Your task to perform on an android device: Go to sound settings Image 0: 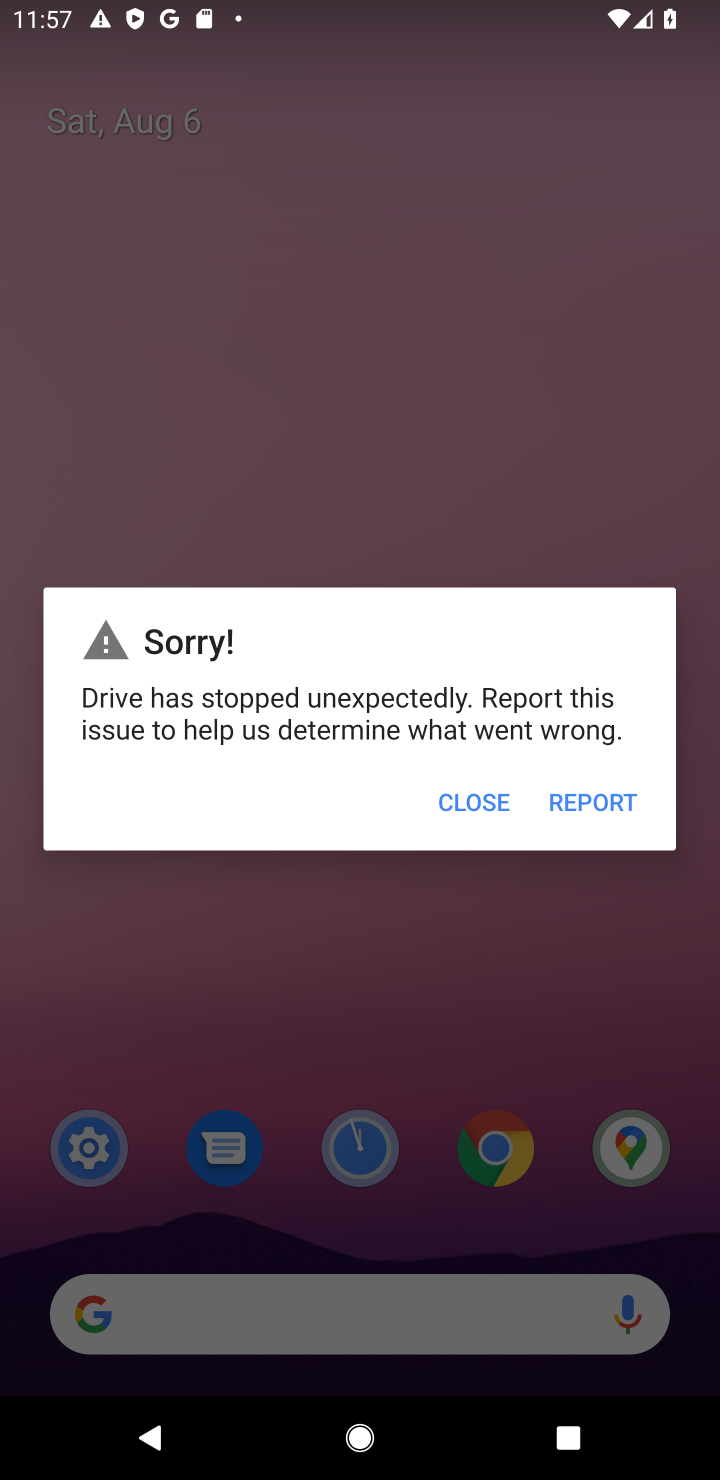
Step 0: click (465, 794)
Your task to perform on an android device: Go to sound settings Image 1: 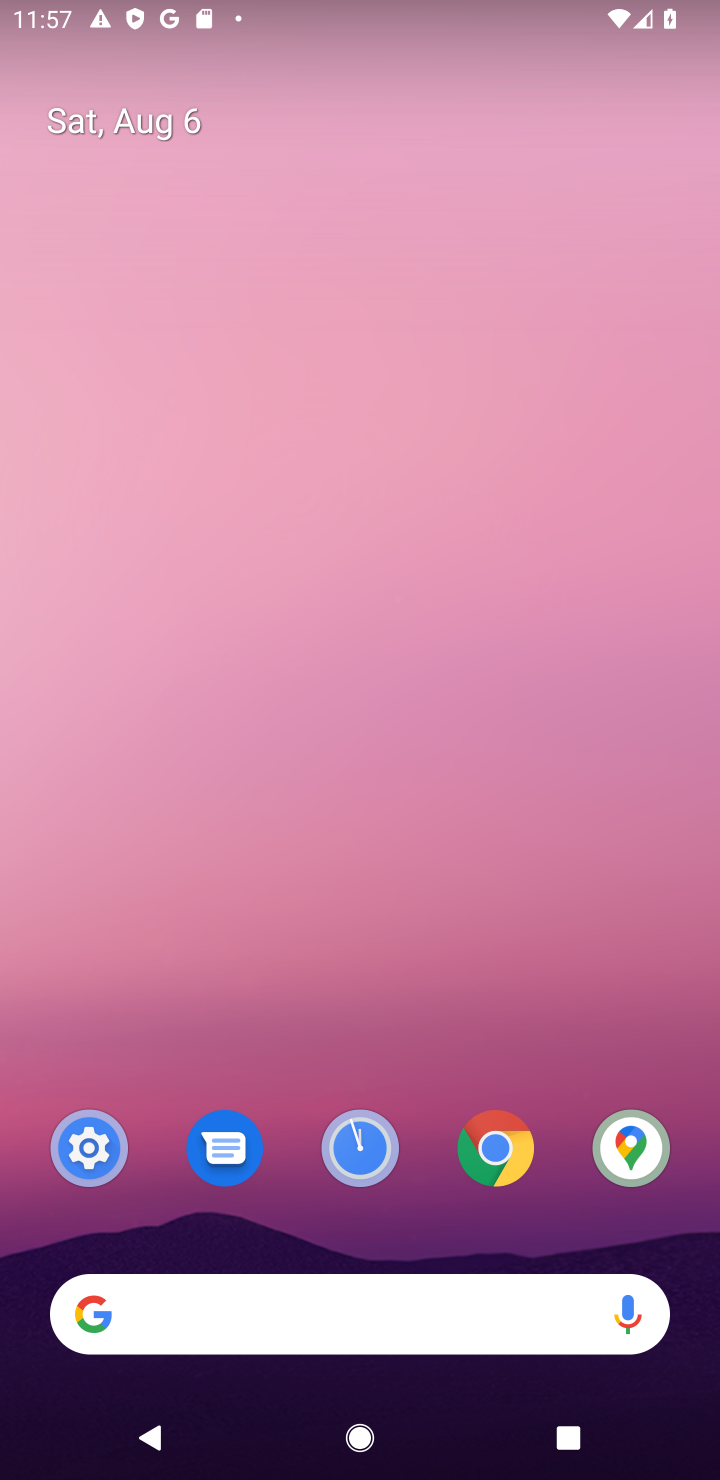
Step 1: click (89, 1139)
Your task to perform on an android device: Go to sound settings Image 2: 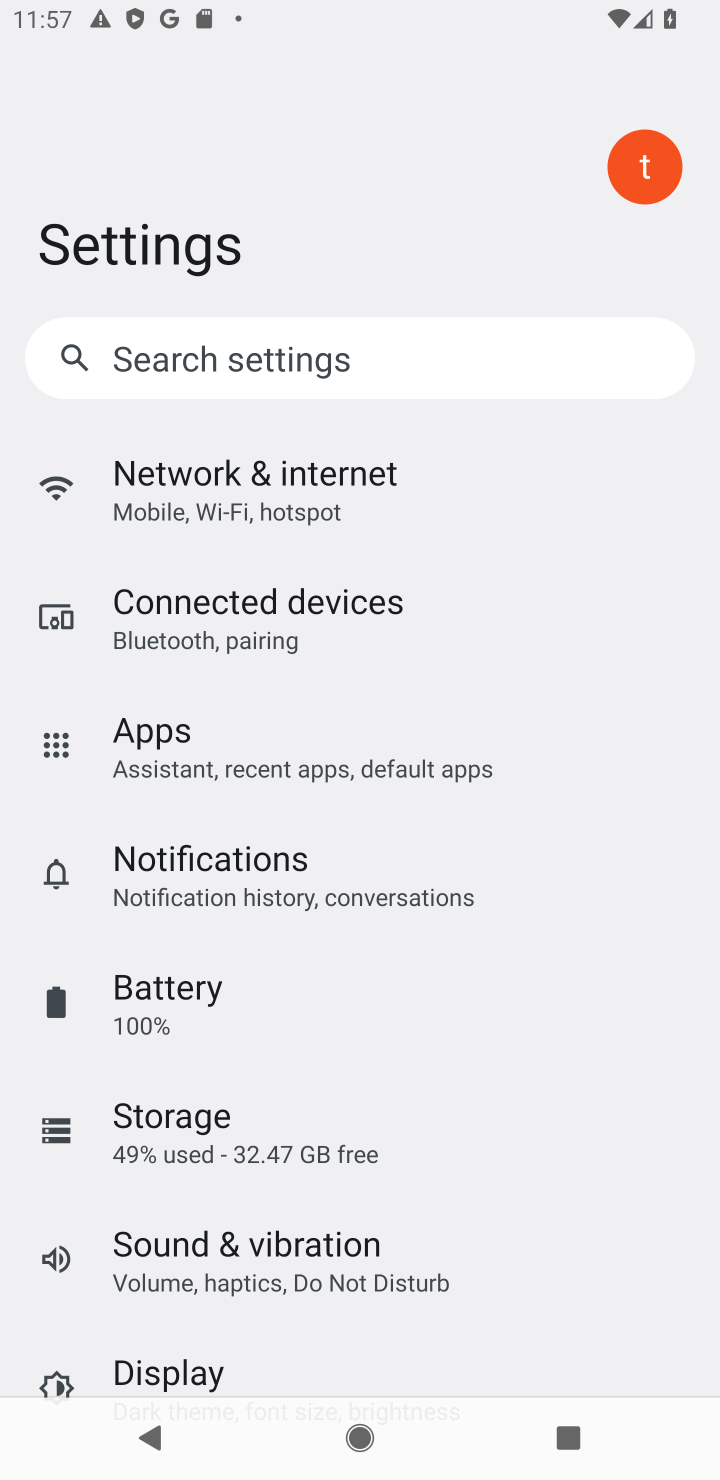
Step 2: click (178, 1229)
Your task to perform on an android device: Go to sound settings Image 3: 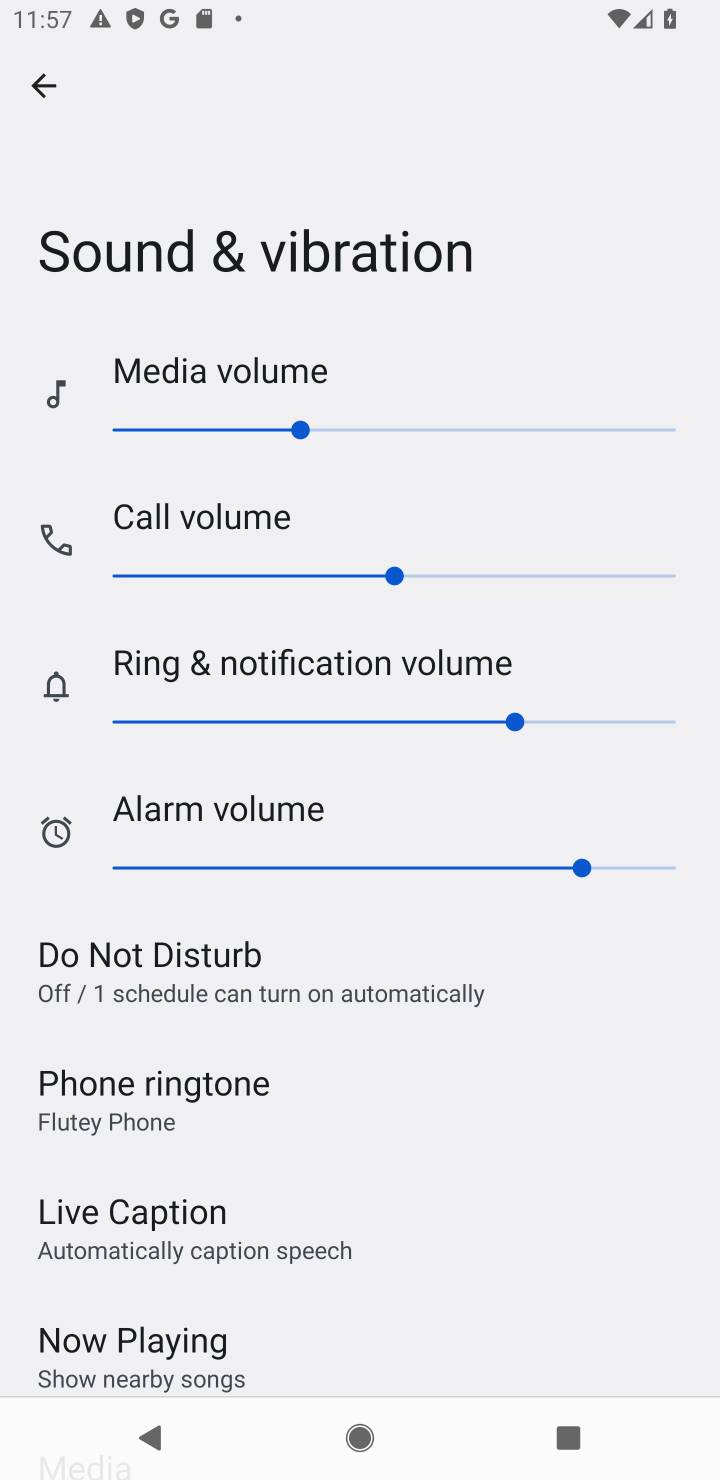
Step 3: task complete